Your task to perform on an android device: Go to Android settings Image 0: 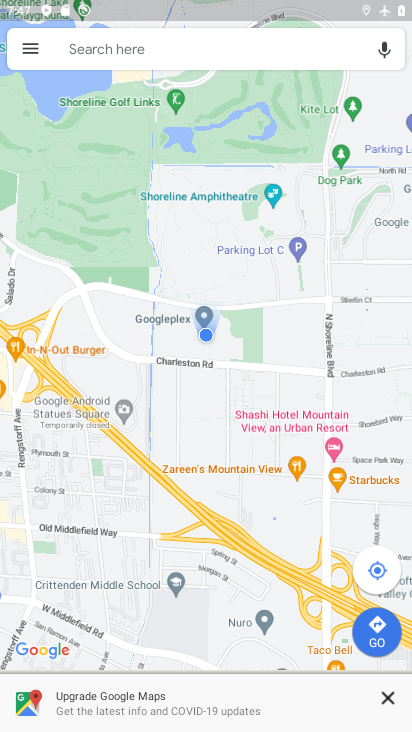
Step 0: press home button
Your task to perform on an android device: Go to Android settings Image 1: 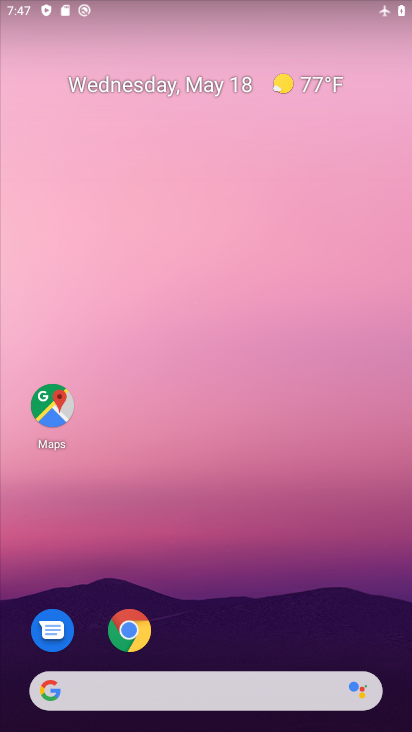
Step 1: drag from (288, 494) to (294, 224)
Your task to perform on an android device: Go to Android settings Image 2: 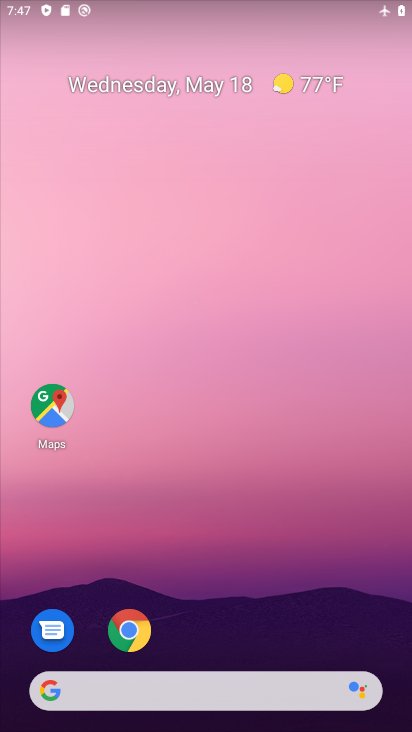
Step 2: drag from (280, 630) to (278, 190)
Your task to perform on an android device: Go to Android settings Image 3: 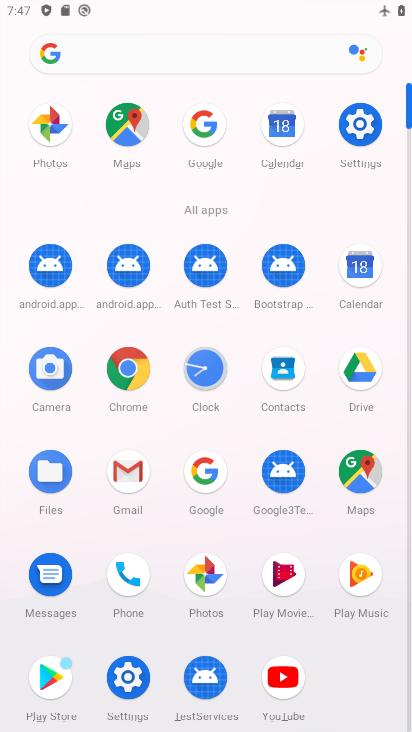
Step 3: click (356, 135)
Your task to perform on an android device: Go to Android settings Image 4: 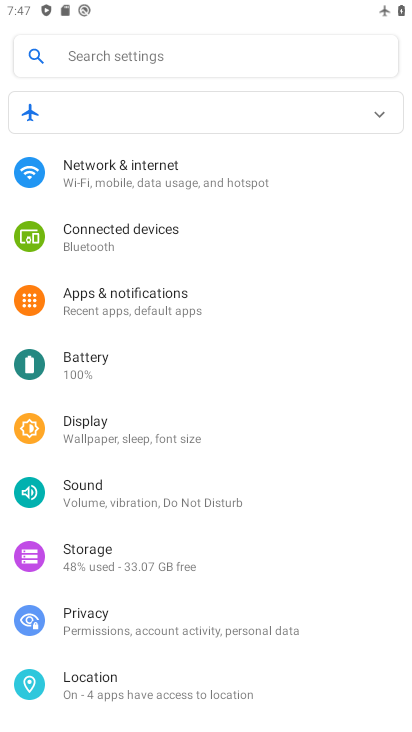
Step 4: drag from (242, 629) to (263, 222)
Your task to perform on an android device: Go to Android settings Image 5: 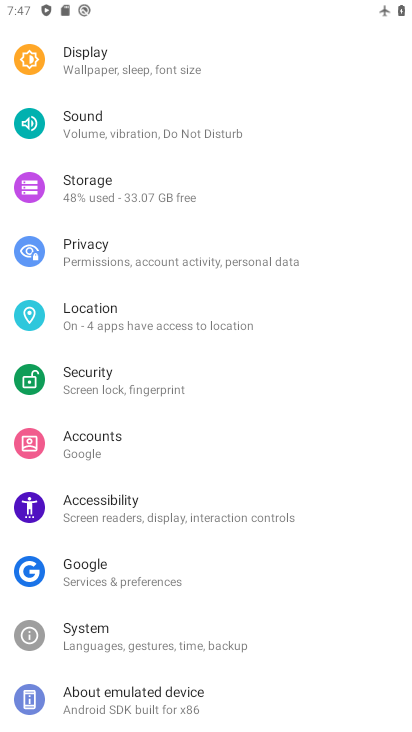
Step 5: click (160, 690)
Your task to perform on an android device: Go to Android settings Image 6: 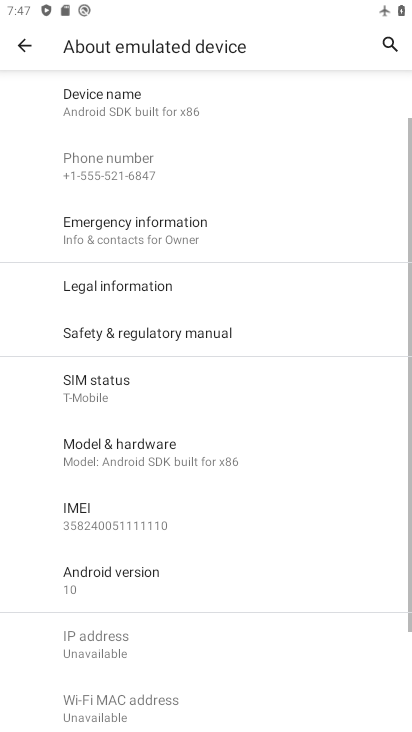
Step 6: task complete